Your task to perform on an android device: set default search engine in the chrome app Image 0: 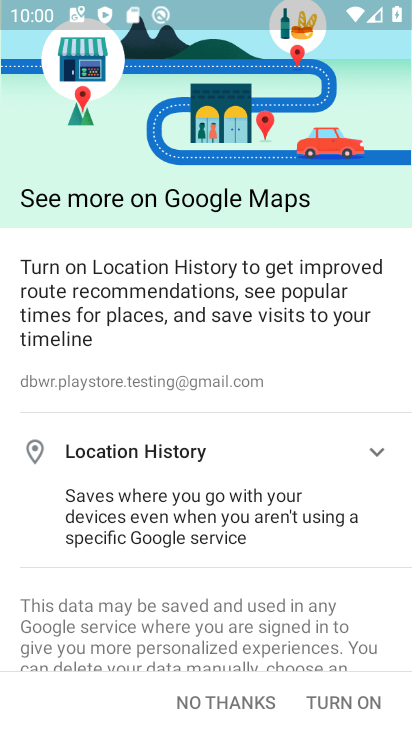
Step 0: press home button
Your task to perform on an android device: set default search engine in the chrome app Image 1: 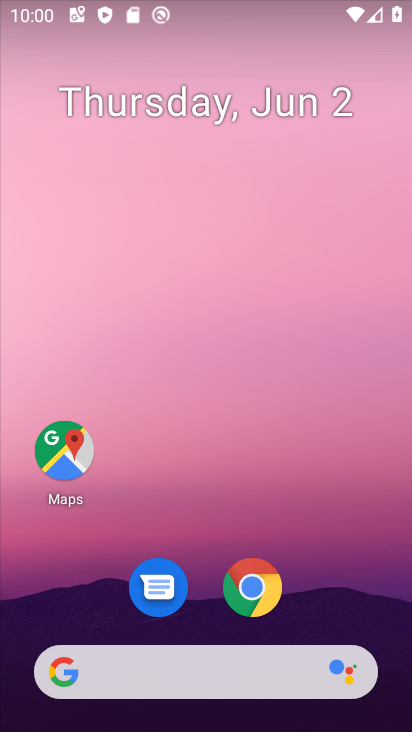
Step 1: click (247, 587)
Your task to perform on an android device: set default search engine in the chrome app Image 2: 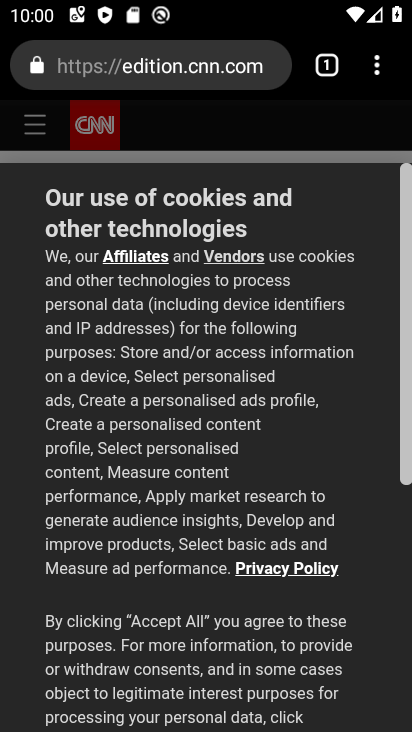
Step 2: click (372, 79)
Your task to perform on an android device: set default search engine in the chrome app Image 3: 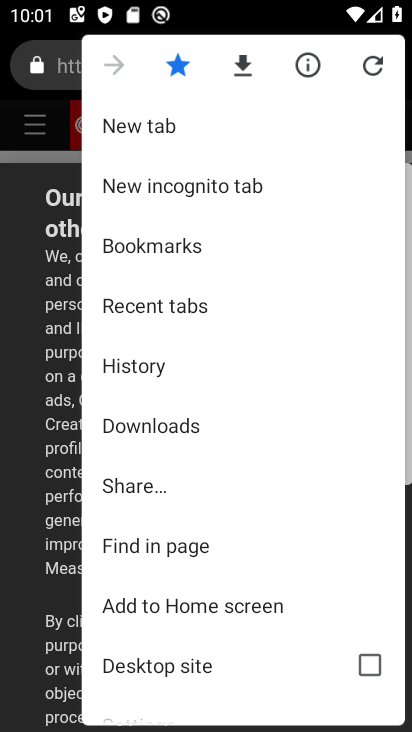
Step 3: drag from (260, 627) to (249, 386)
Your task to perform on an android device: set default search engine in the chrome app Image 4: 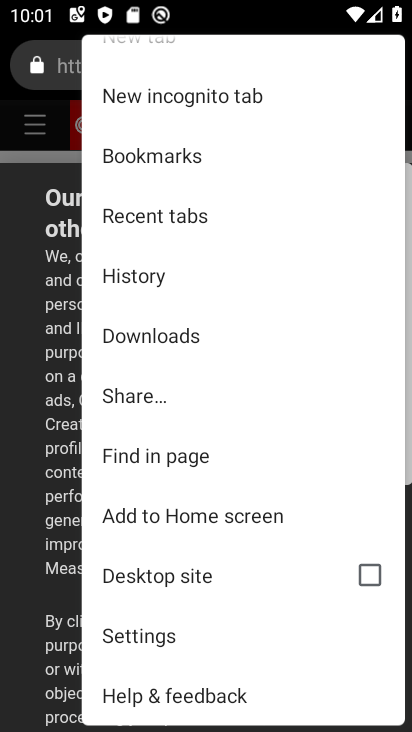
Step 4: click (224, 625)
Your task to perform on an android device: set default search engine in the chrome app Image 5: 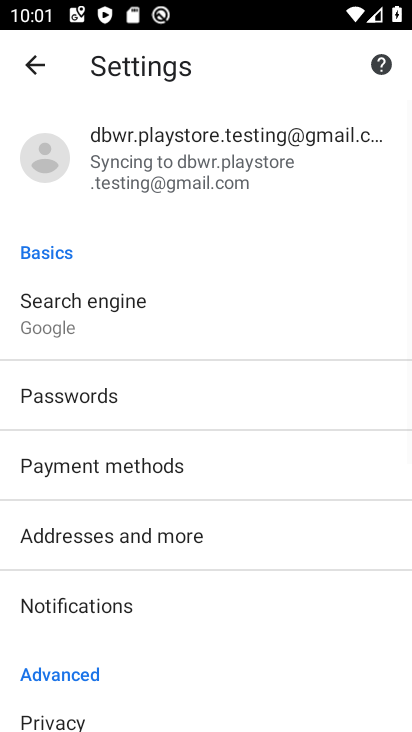
Step 5: click (209, 304)
Your task to perform on an android device: set default search engine in the chrome app Image 6: 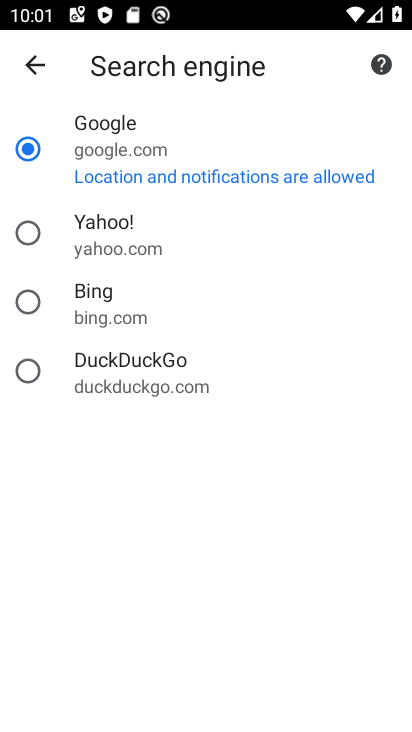
Step 6: click (195, 309)
Your task to perform on an android device: set default search engine in the chrome app Image 7: 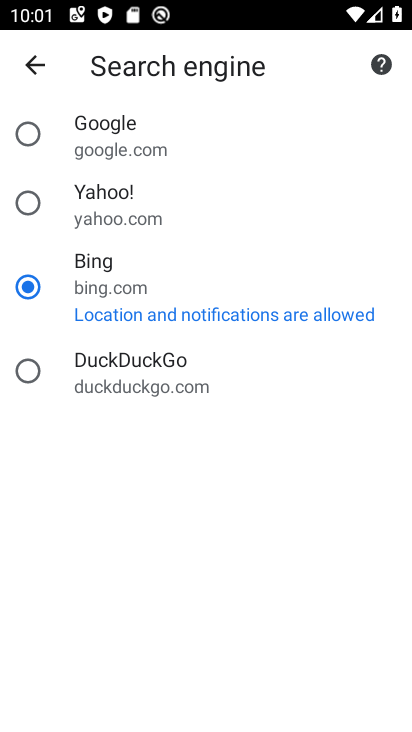
Step 7: task complete